Your task to perform on an android device: What's the weather going to be tomorrow? Image 0: 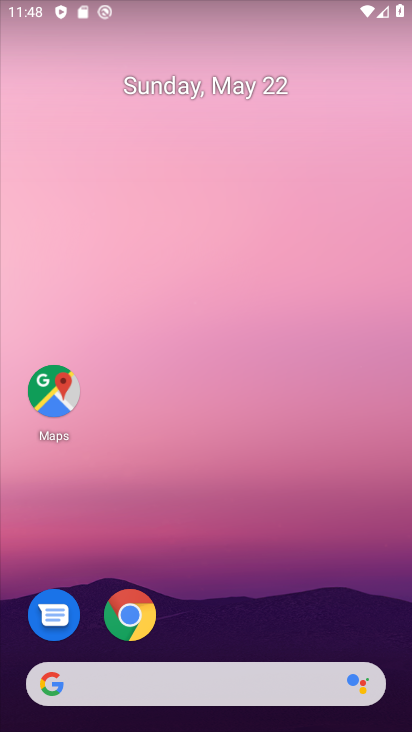
Step 0: click (203, 675)
Your task to perform on an android device: What's the weather going to be tomorrow? Image 1: 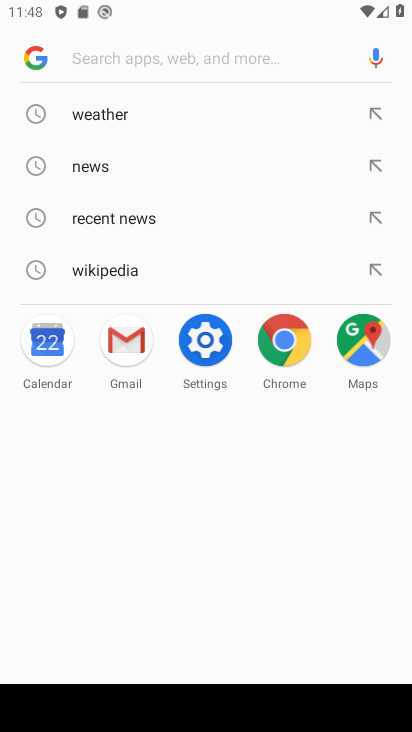
Step 1: click (108, 118)
Your task to perform on an android device: What's the weather going to be tomorrow? Image 2: 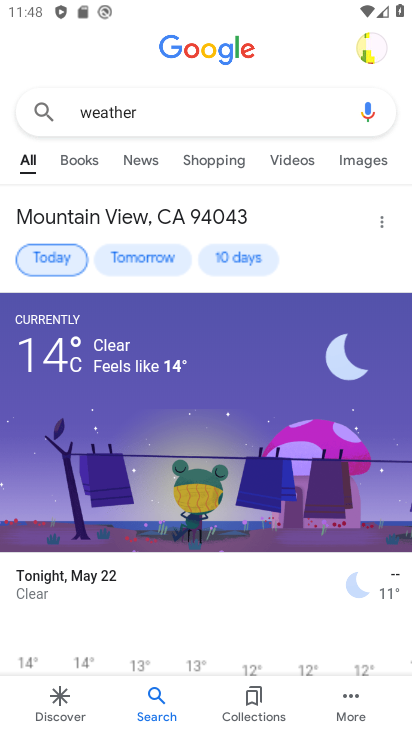
Step 2: click (141, 263)
Your task to perform on an android device: What's the weather going to be tomorrow? Image 3: 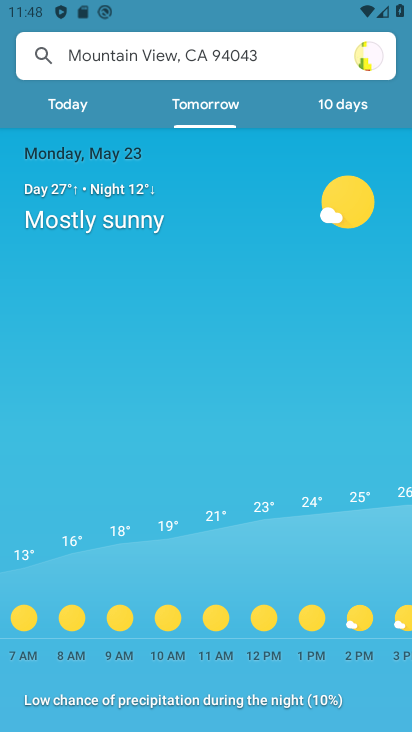
Step 3: task complete